Your task to perform on an android device: set default search engine in the chrome app Image 0: 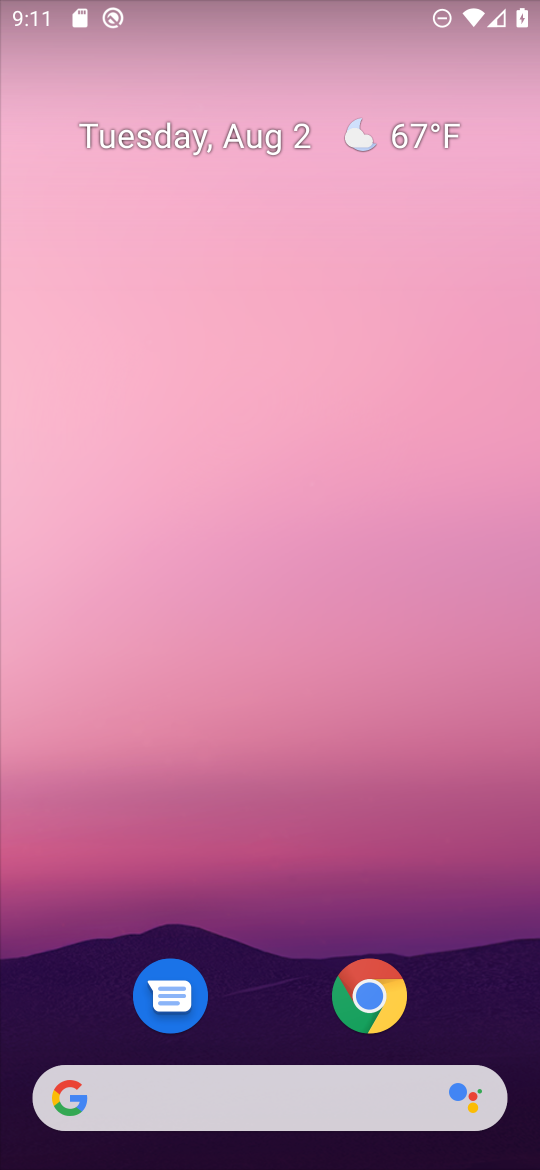
Step 0: press home button
Your task to perform on an android device: set default search engine in the chrome app Image 1: 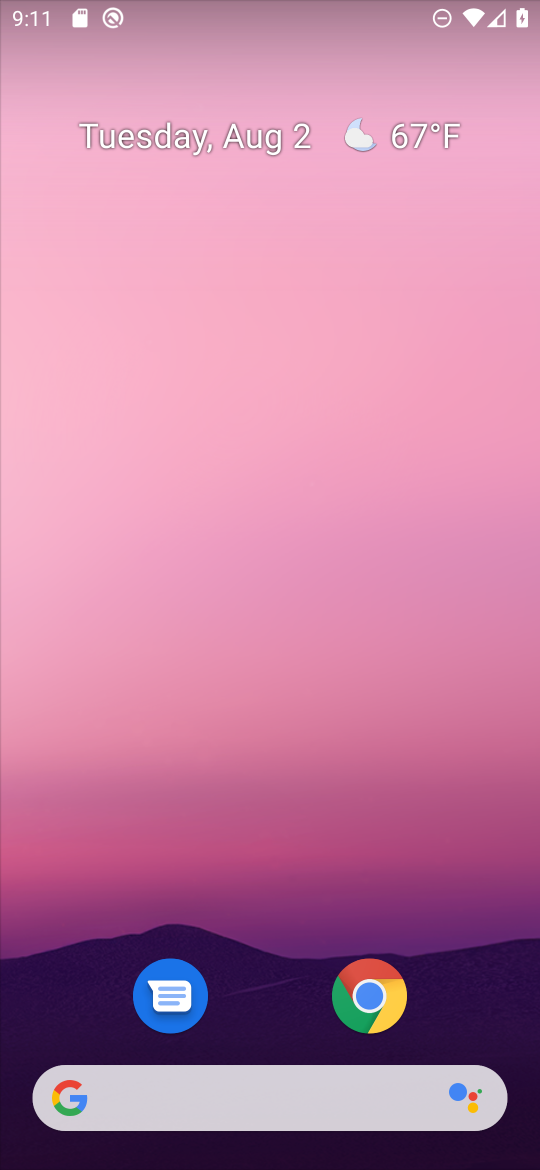
Step 1: drag from (275, 984) to (272, 51)
Your task to perform on an android device: set default search engine in the chrome app Image 2: 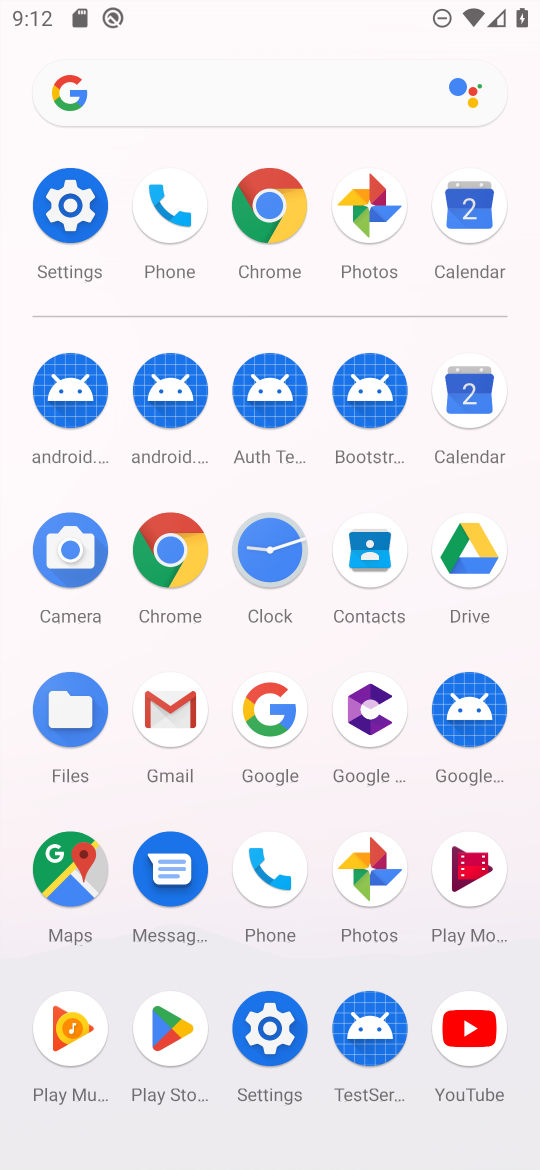
Step 2: click (164, 533)
Your task to perform on an android device: set default search engine in the chrome app Image 3: 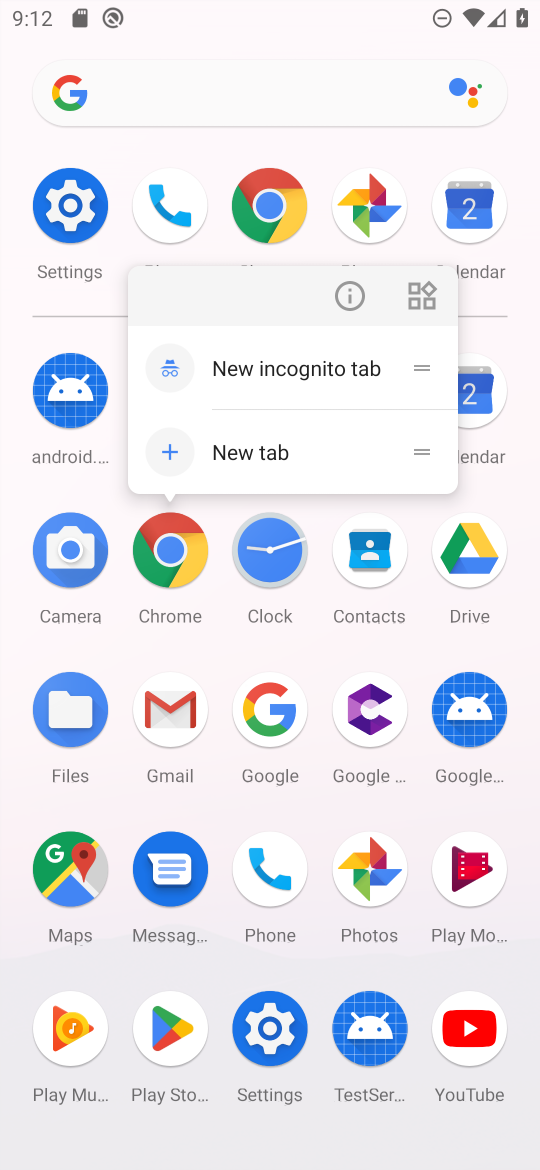
Step 3: click (174, 551)
Your task to perform on an android device: set default search engine in the chrome app Image 4: 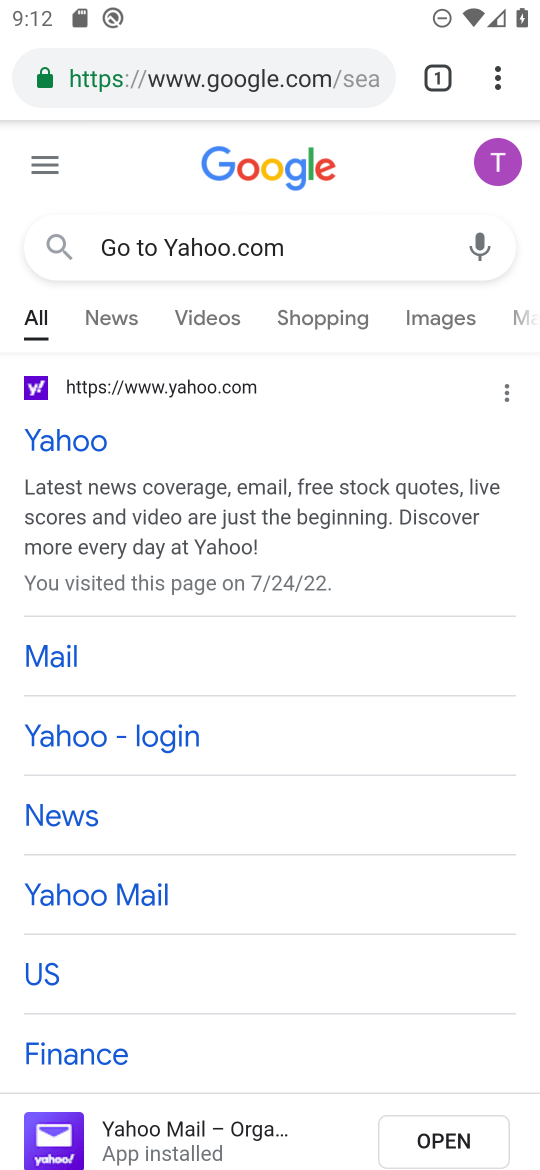
Step 4: click (500, 73)
Your task to perform on an android device: set default search engine in the chrome app Image 5: 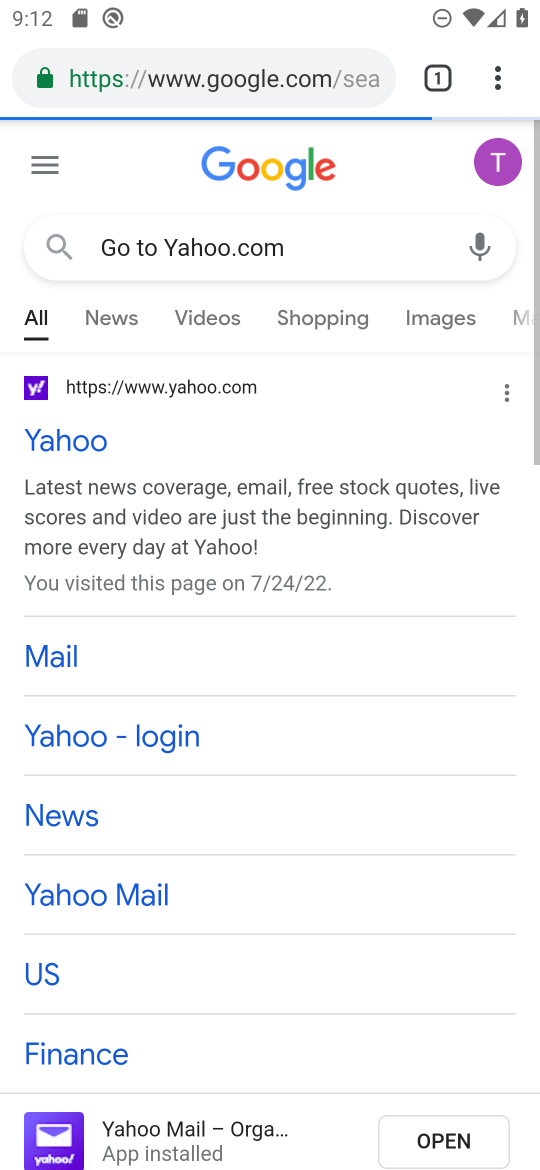
Step 5: drag from (497, 60) to (243, 969)
Your task to perform on an android device: set default search engine in the chrome app Image 6: 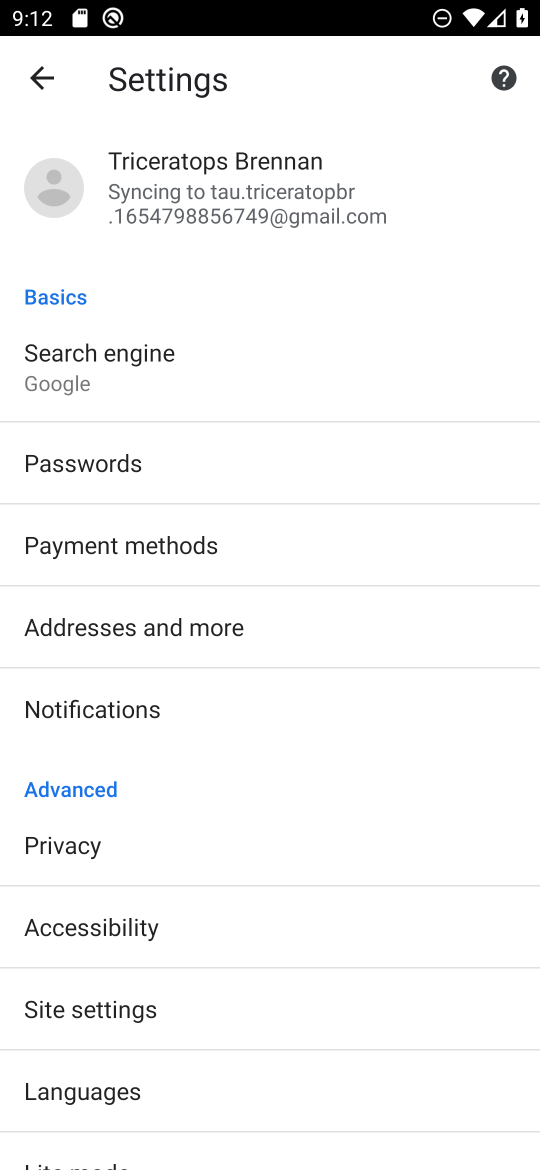
Step 6: click (149, 365)
Your task to perform on an android device: set default search engine in the chrome app Image 7: 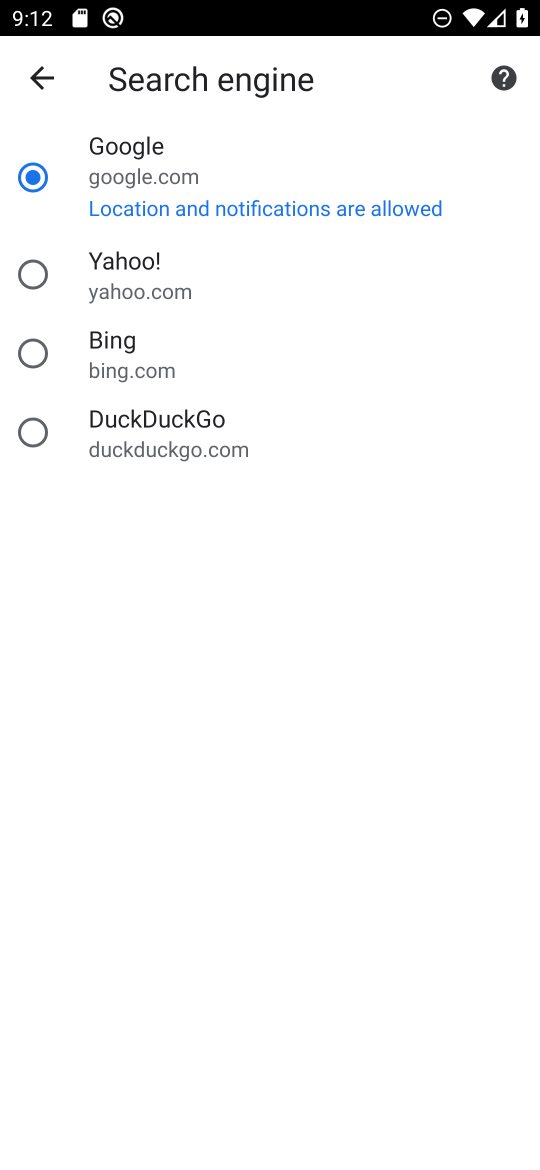
Step 7: task complete